Your task to perform on an android device: Clear all items from cart on bestbuy. Add razer blade to the cart on bestbuy Image 0: 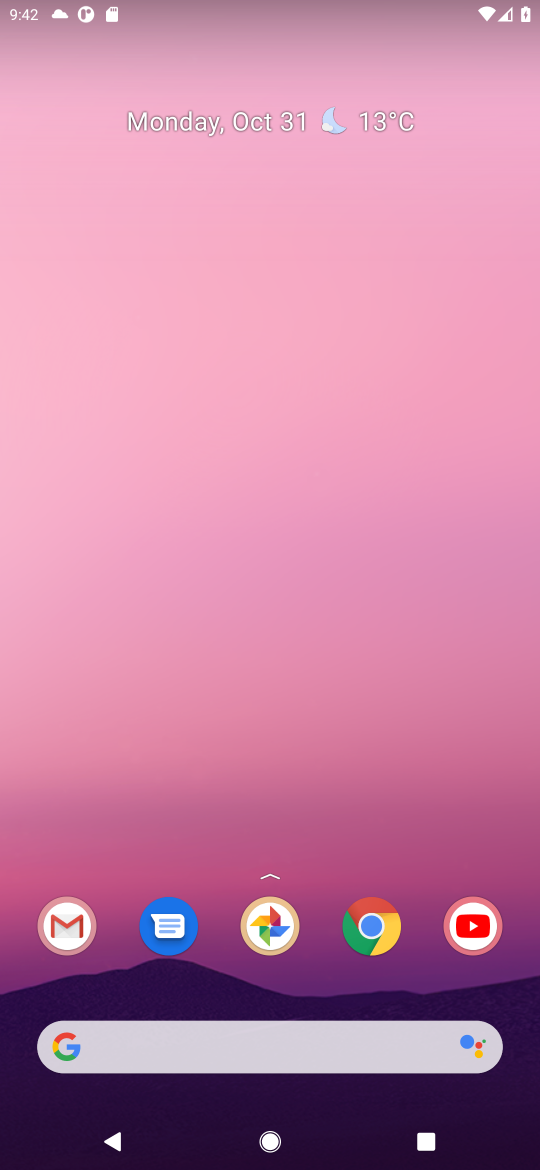
Step 0: click (368, 924)
Your task to perform on an android device: Clear all items from cart on bestbuy. Add razer blade to the cart on bestbuy Image 1: 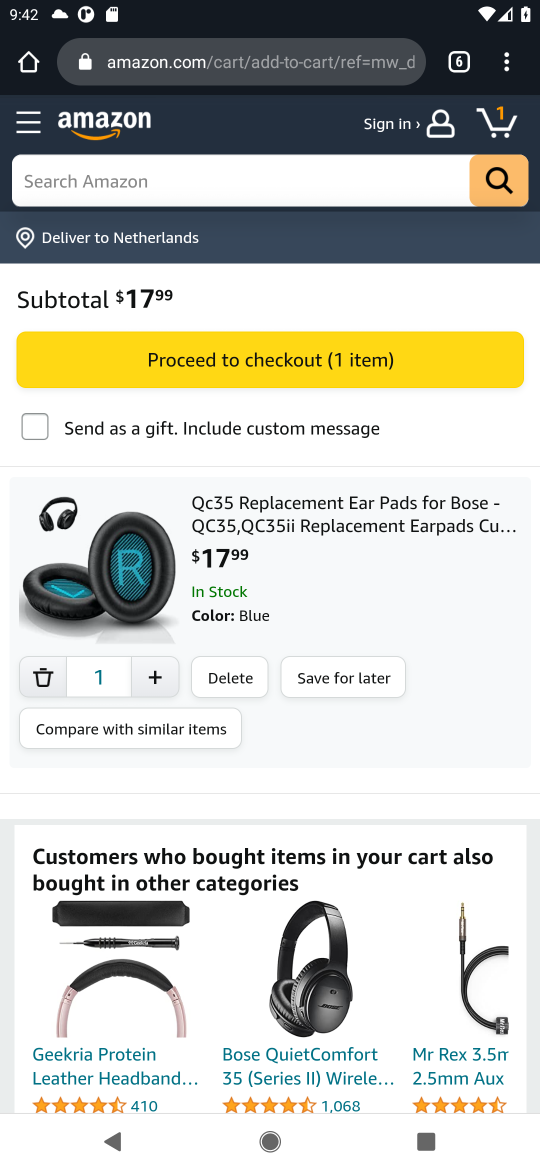
Step 1: click (462, 66)
Your task to perform on an android device: Clear all items from cart on bestbuy. Add razer blade to the cart on bestbuy Image 2: 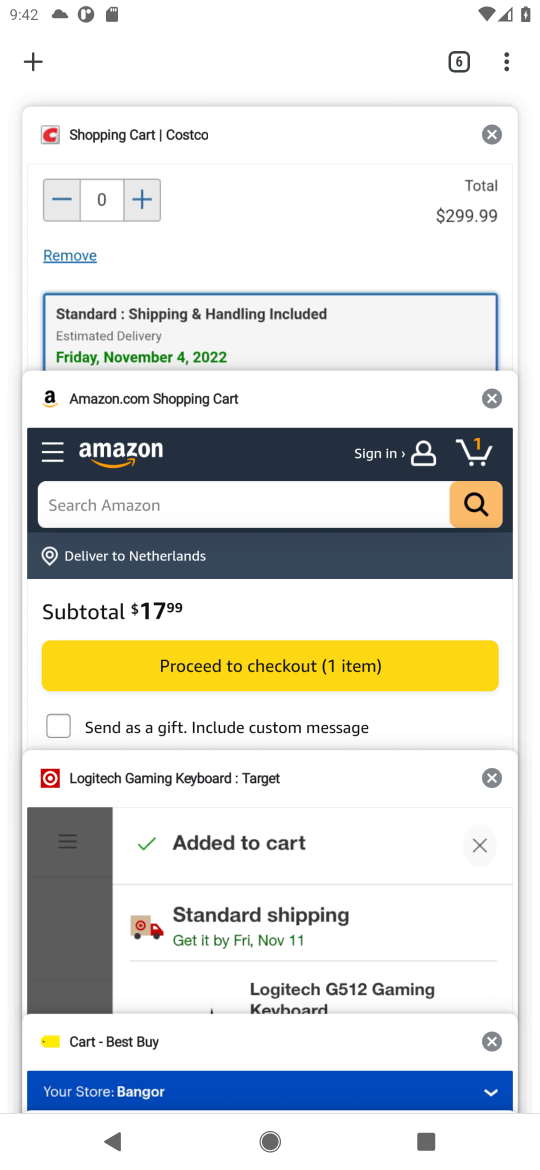
Step 2: drag from (242, 981) to (379, 598)
Your task to perform on an android device: Clear all items from cart on bestbuy. Add razer blade to the cart on bestbuy Image 3: 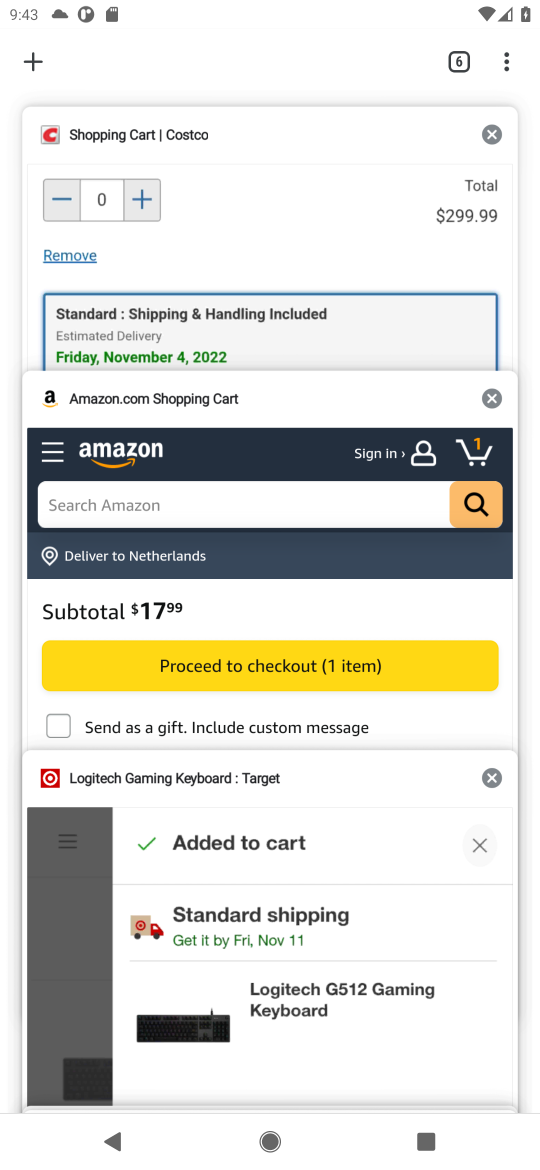
Step 3: drag from (173, 1054) to (321, 261)
Your task to perform on an android device: Clear all items from cart on bestbuy. Add razer blade to the cart on bestbuy Image 4: 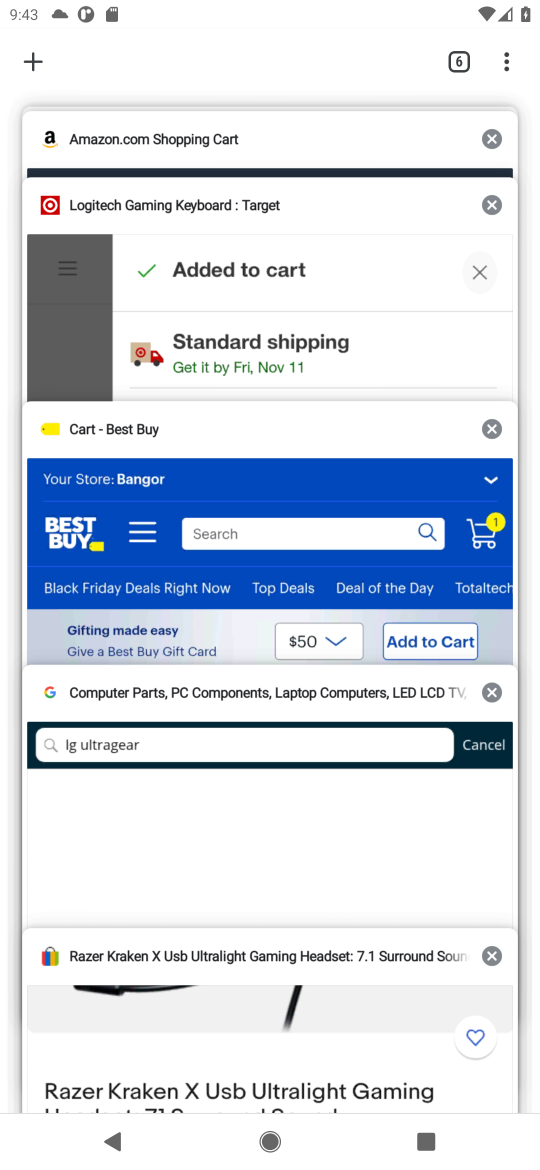
Step 4: click (224, 495)
Your task to perform on an android device: Clear all items from cart on bestbuy. Add razer blade to the cart on bestbuy Image 5: 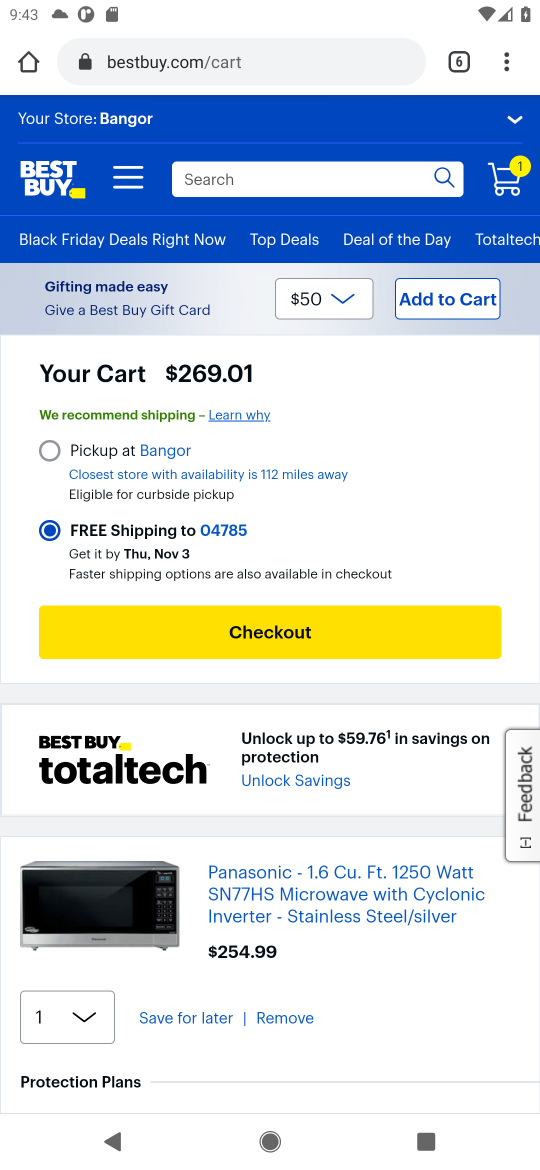
Step 5: click (295, 1017)
Your task to perform on an android device: Clear all items from cart on bestbuy. Add razer blade to the cart on bestbuy Image 6: 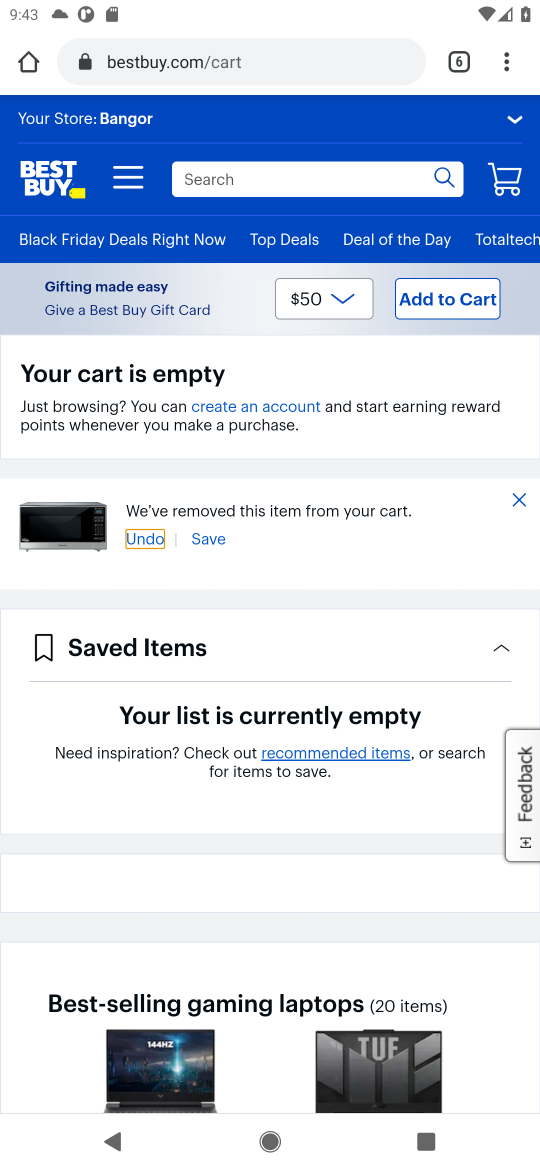
Step 6: click (249, 176)
Your task to perform on an android device: Clear all items from cart on bestbuy. Add razer blade to the cart on bestbuy Image 7: 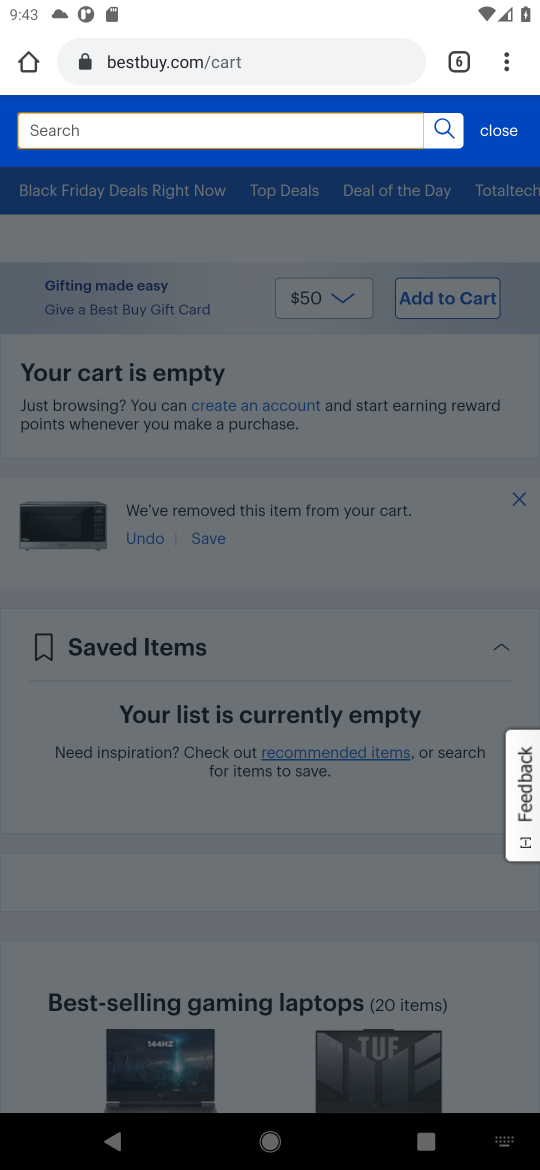
Step 7: type "razer blade"
Your task to perform on an android device: Clear all items from cart on bestbuy. Add razer blade to the cart on bestbuy Image 8: 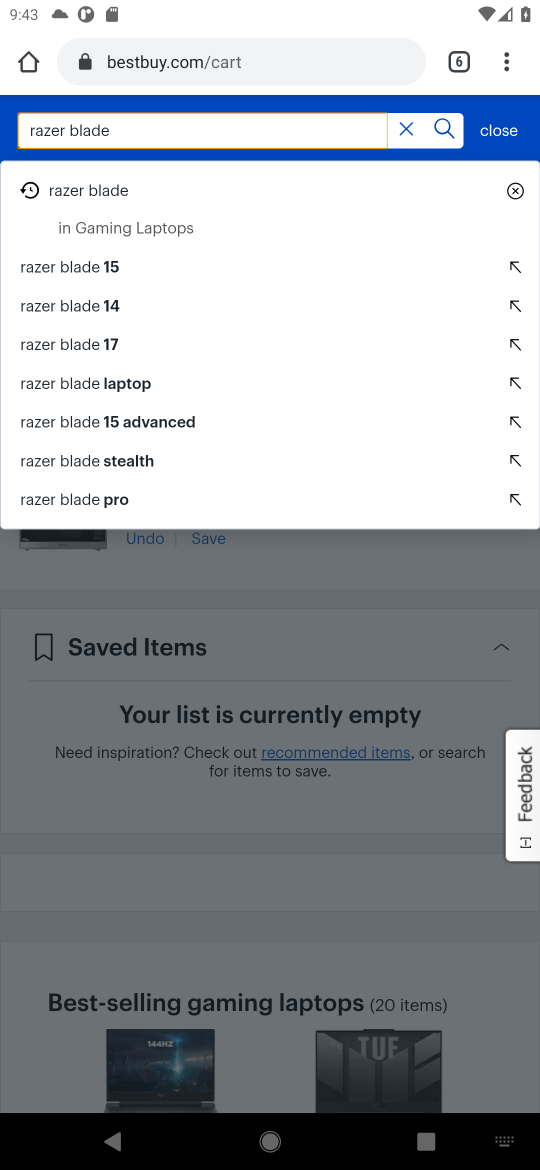
Step 8: click (101, 197)
Your task to perform on an android device: Clear all items from cart on bestbuy. Add razer blade to the cart on bestbuy Image 9: 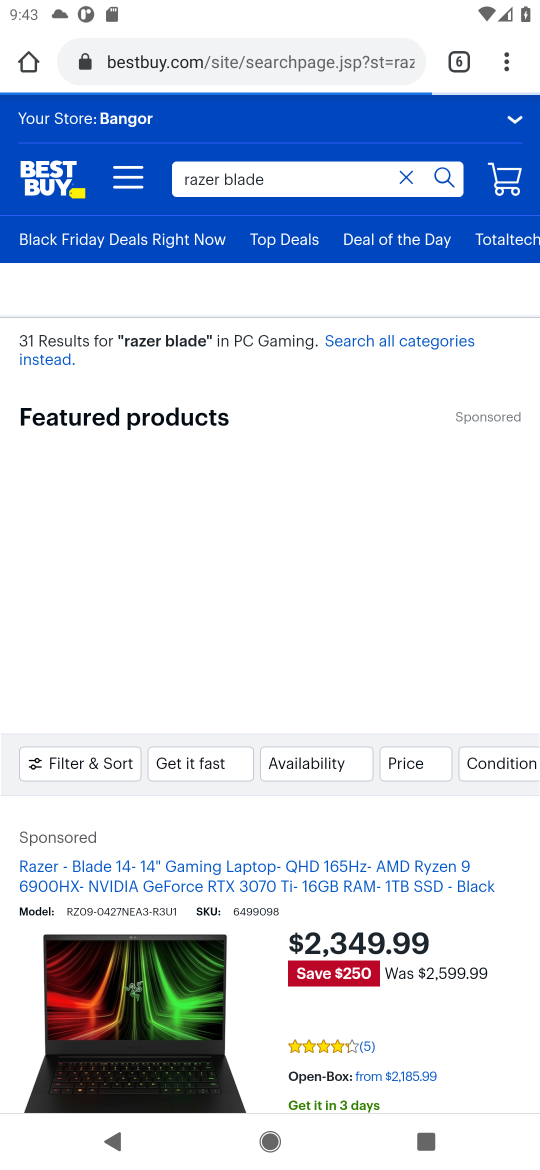
Step 9: drag from (411, 1063) to (407, 617)
Your task to perform on an android device: Clear all items from cart on bestbuy. Add razer blade to the cart on bestbuy Image 10: 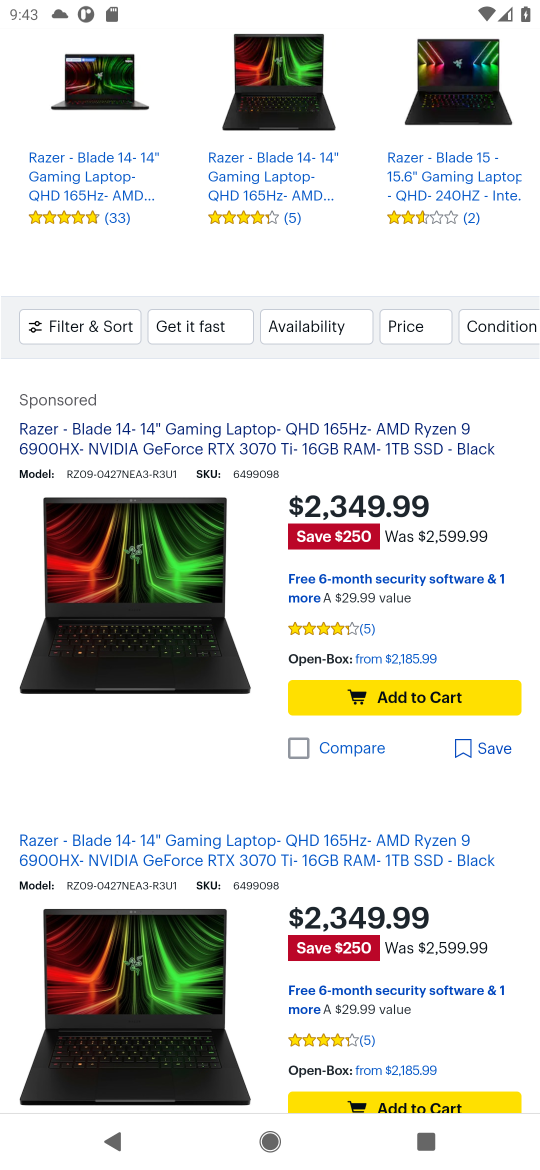
Step 10: click (453, 745)
Your task to perform on an android device: Clear all items from cart on bestbuy. Add razer blade to the cart on bestbuy Image 11: 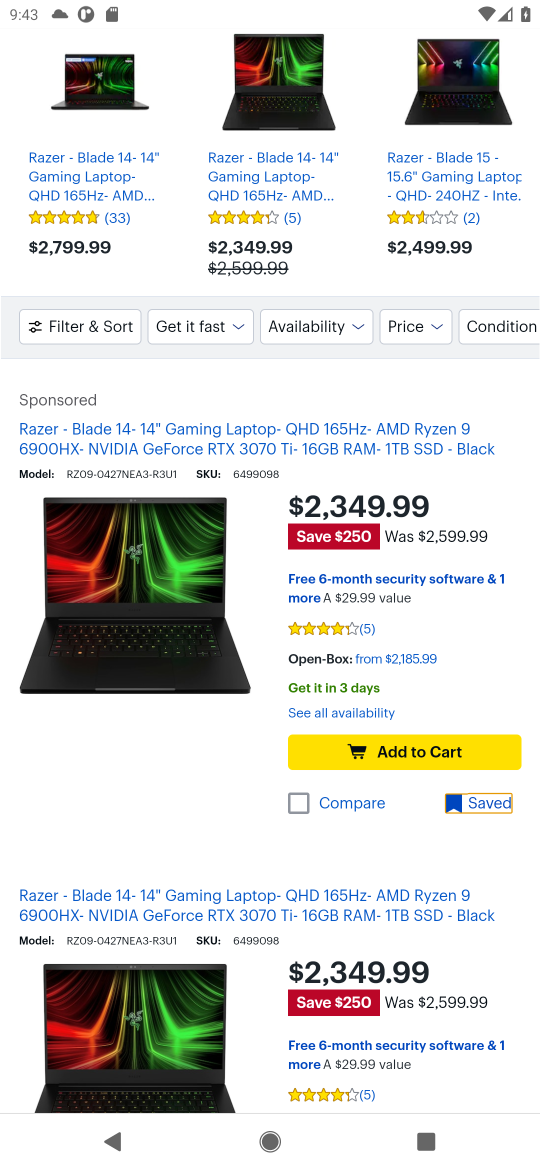
Step 11: click (424, 752)
Your task to perform on an android device: Clear all items from cart on bestbuy. Add razer blade to the cart on bestbuy Image 12: 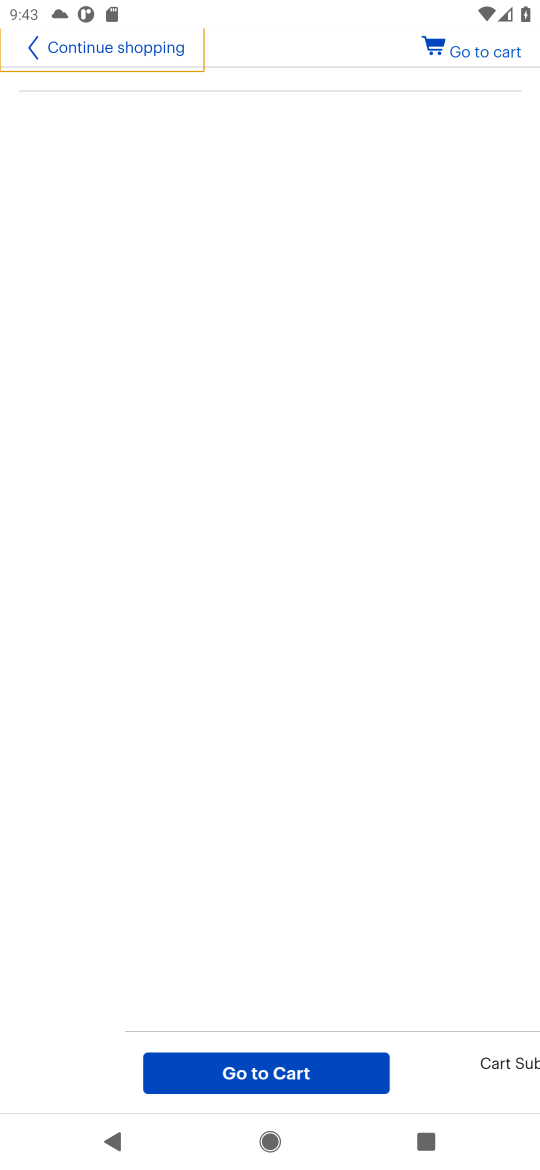
Step 12: task complete